Your task to perform on an android device: Show me the alarms in the clock app Image 0: 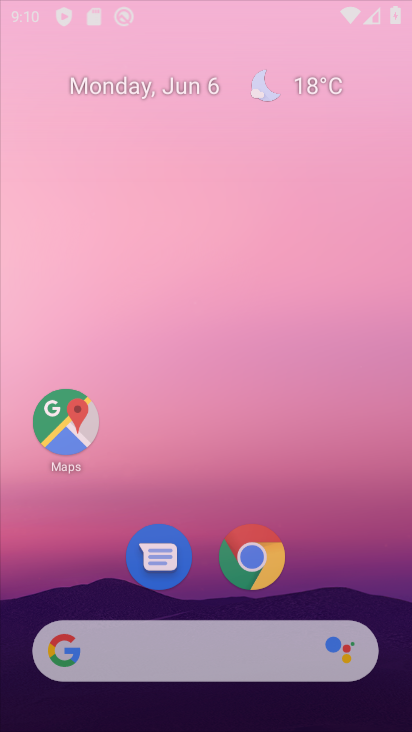
Step 0: click (299, 175)
Your task to perform on an android device: Show me the alarms in the clock app Image 1: 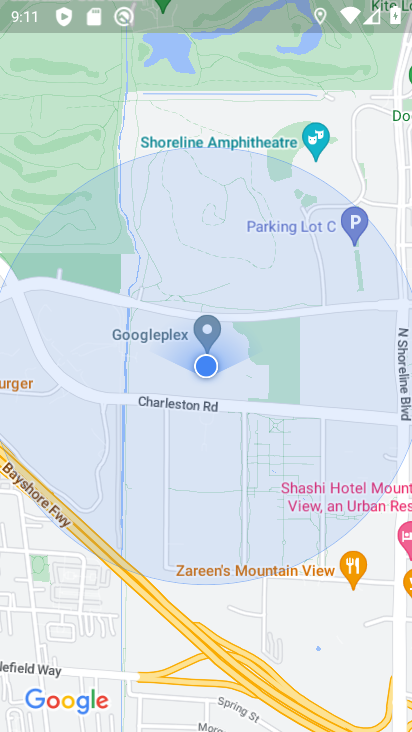
Step 1: press home button
Your task to perform on an android device: Show me the alarms in the clock app Image 2: 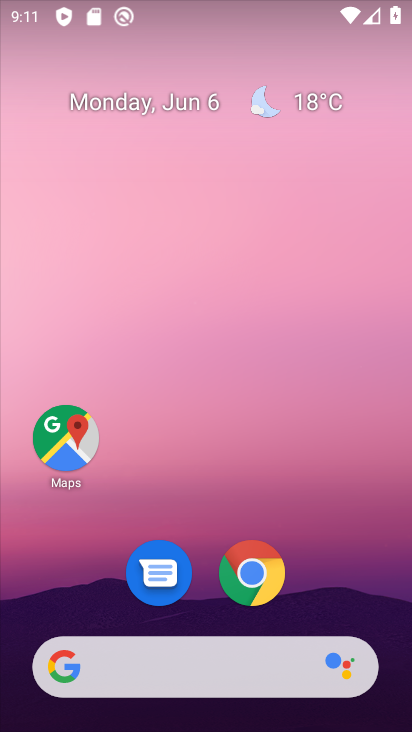
Step 2: drag from (345, 612) to (269, 230)
Your task to perform on an android device: Show me the alarms in the clock app Image 3: 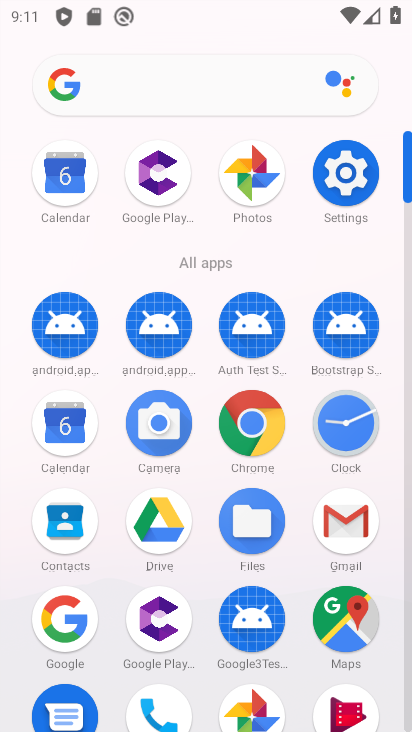
Step 3: click (353, 405)
Your task to perform on an android device: Show me the alarms in the clock app Image 4: 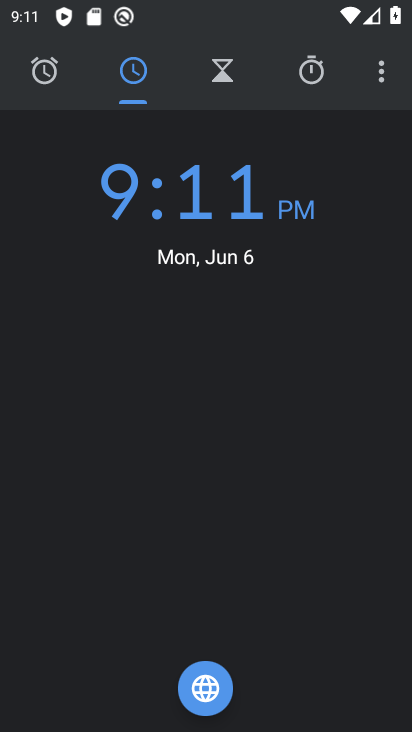
Step 4: click (45, 72)
Your task to perform on an android device: Show me the alarms in the clock app Image 5: 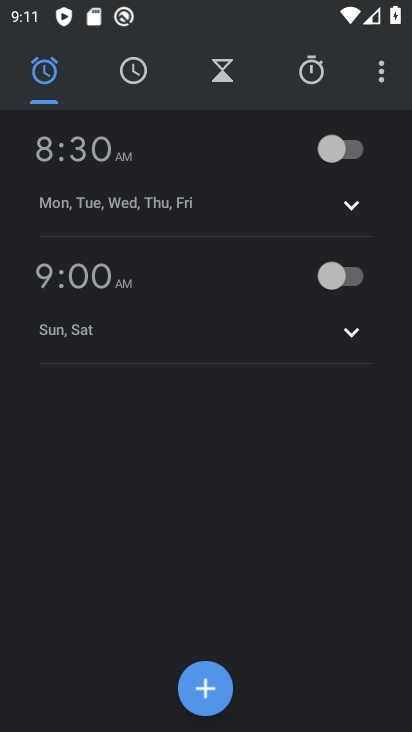
Step 5: task complete